Your task to perform on an android device: change keyboard looks Image 0: 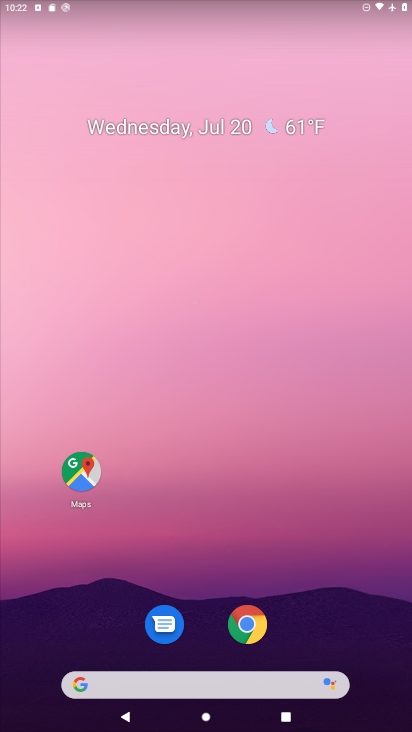
Step 0: drag from (197, 584) to (194, 120)
Your task to perform on an android device: change keyboard looks Image 1: 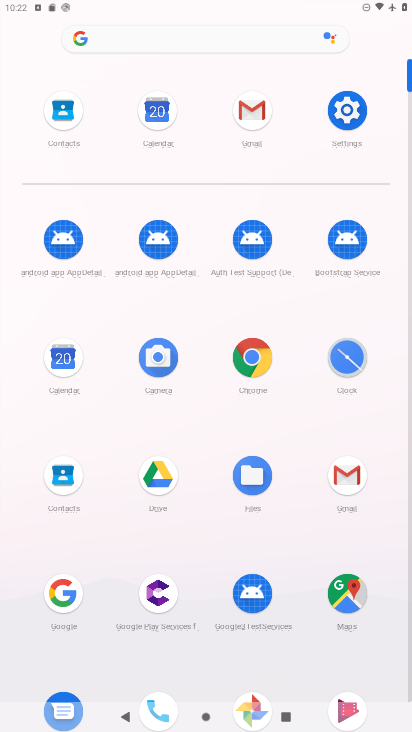
Step 1: click (351, 117)
Your task to perform on an android device: change keyboard looks Image 2: 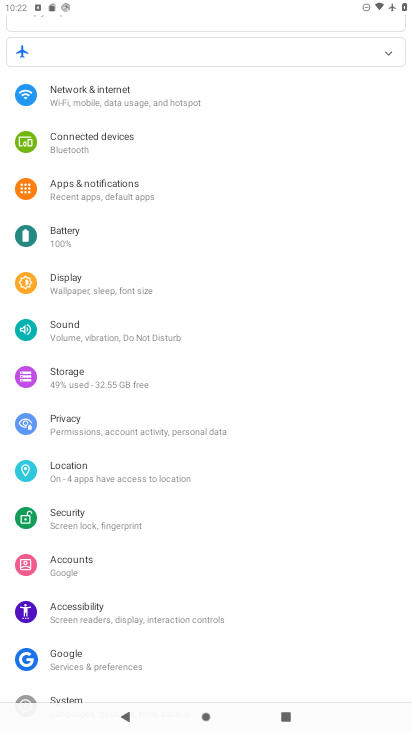
Step 2: drag from (192, 643) to (197, 167)
Your task to perform on an android device: change keyboard looks Image 3: 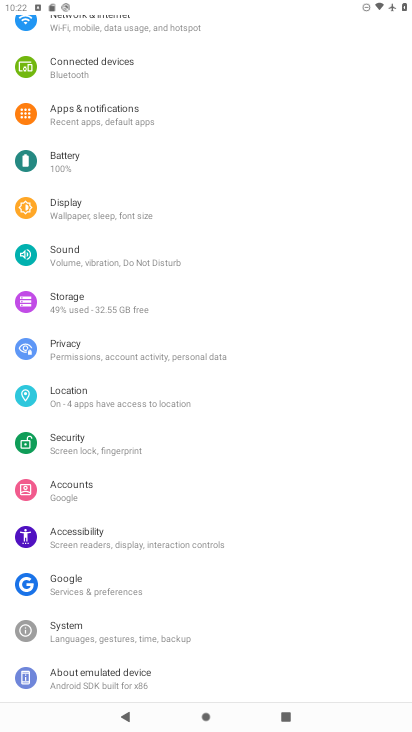
Step 3: click (111, 629)
Your task to perform on an android device: change keyboard looks Image 4: 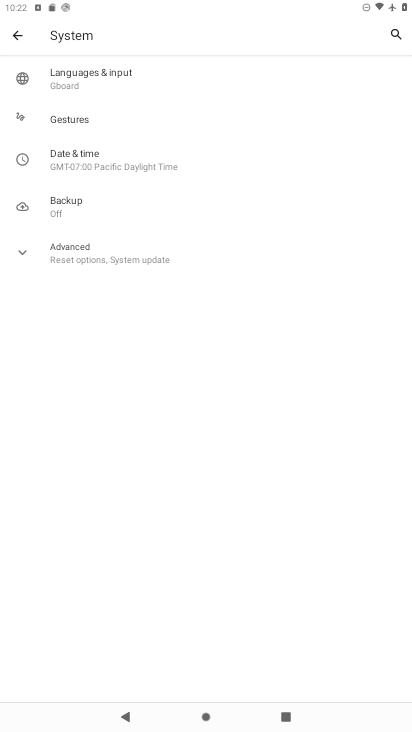
Step 4: click (122, 86)
Your task to perform on an android device: change keyboard looks Image 5: 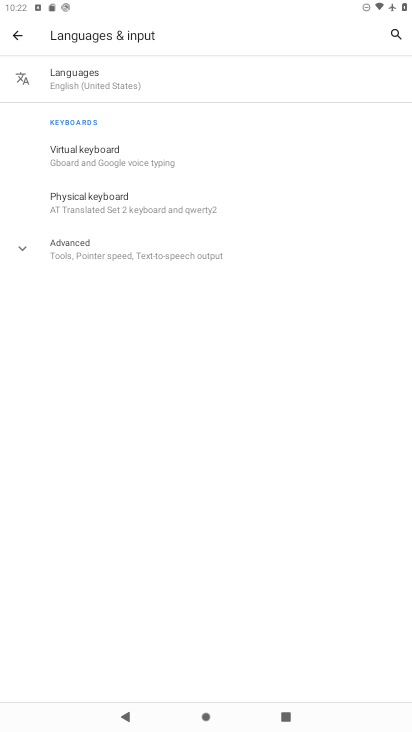
Step 5: click (106, 165)
Your task to perform on an android device: change keyboard looks Image 6: 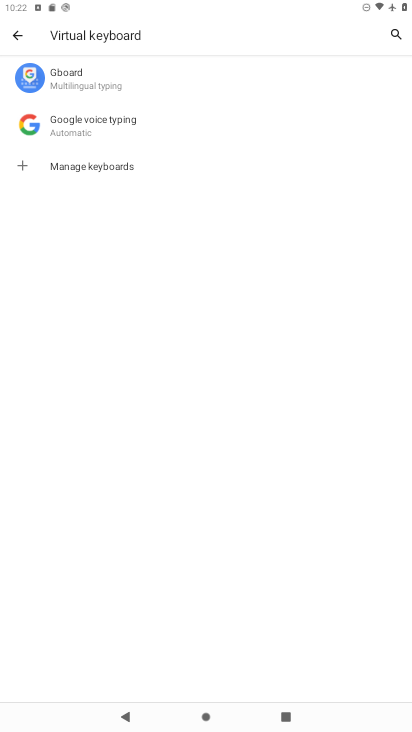
Step 6: click (116, 88)
Your task to perform on an android device: change keyboard looks Image 7: 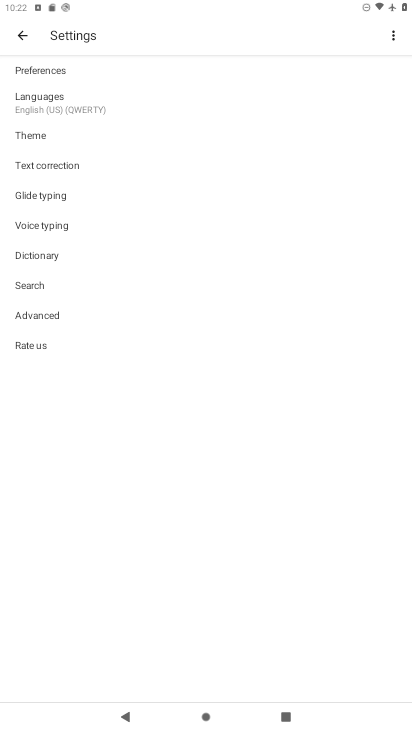
Step 7: click (52, 138)
Your task to perform on an android device: change keyboard looks Image 8: 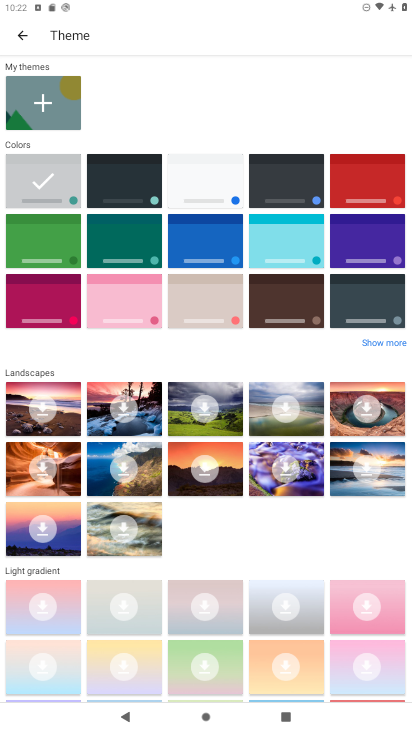
Step 8: click (253, 250)
Your task to perform on an android device: change keyboard looks Image 9: 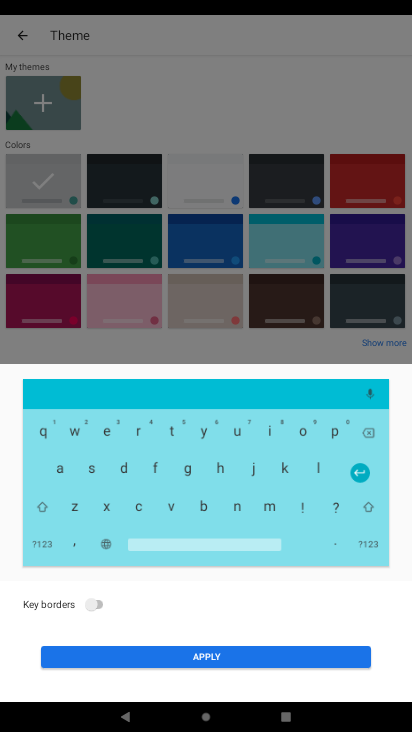
Step 9: click (230, 648)
Your task to perform on an android device: change keyboard looks Image 10: 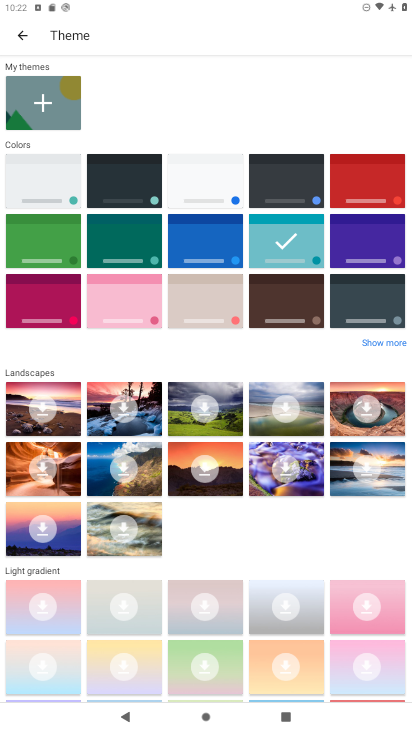
Step 10: task complete